Your task to perform on an android device: open device folders in google photos Image 0: 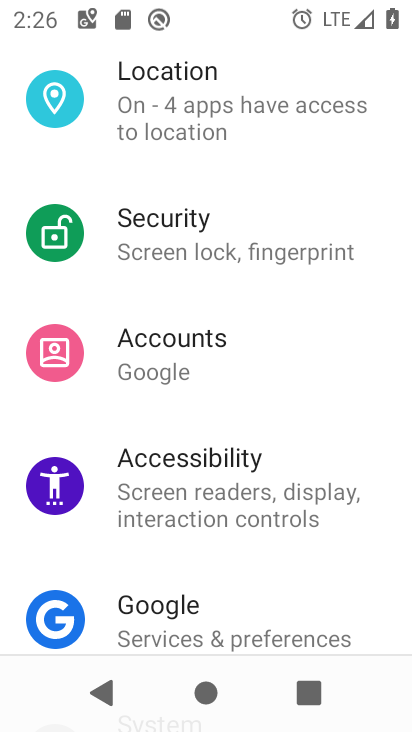
Step 0: press home button
Your task to perform on an android device: open device folders in google photos Image 1: 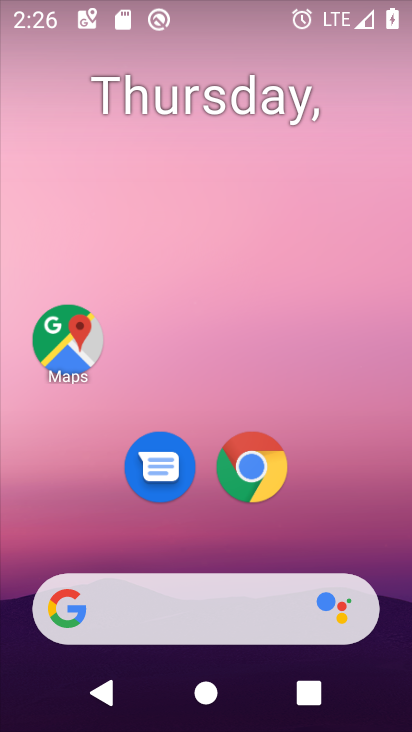
Step 1: drag from (223, 564) to (174, 24)
Your task to perform on an android device: open device folders in google photos Image 2: 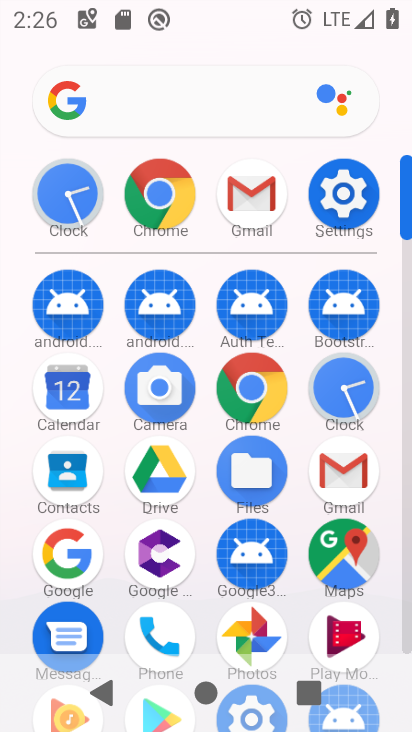
Step 2: click (237, 633)
Your task to perform on an android device: open device folders in google photos Image 3: 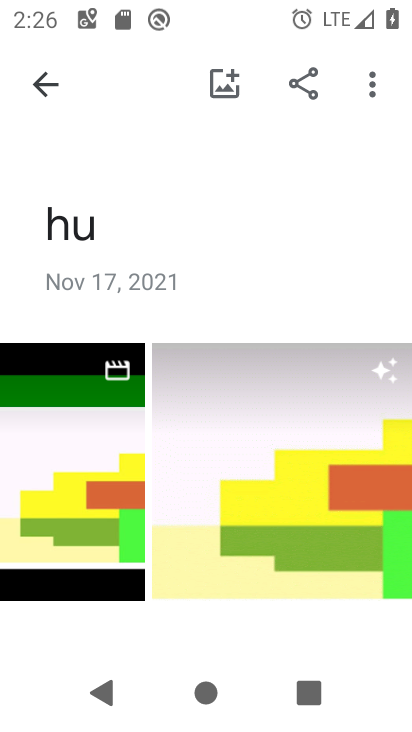
Step 3: click (36, 77)
Your task to perform on an android device: open device folders in google photos Image 4: 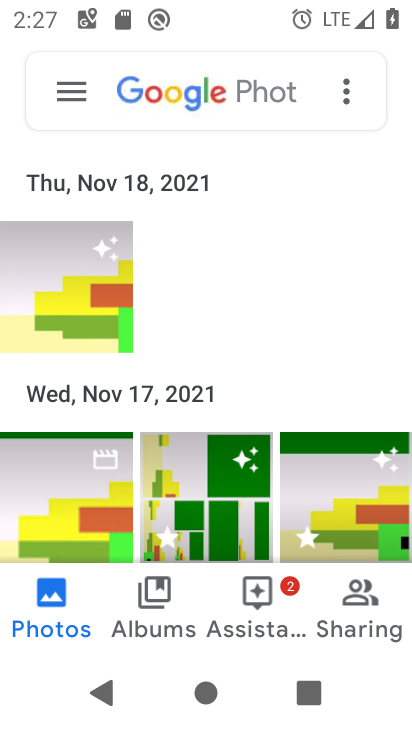
Step 4: click (77, 80)
Your task to perform on an android device: open device folders in google photos Image 5: 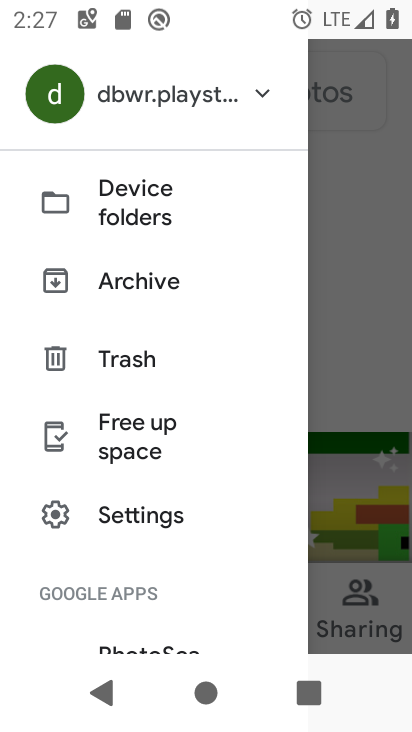
Step 5: click (144, 221)
Your task to perform on an android device: open device folders in google photos Image 6: 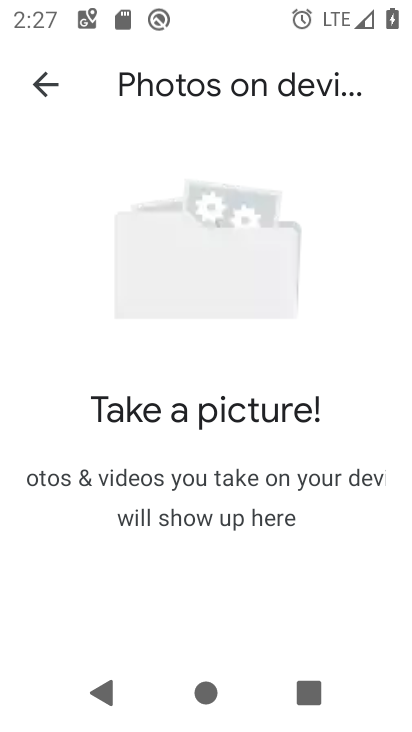
Step 6: task complete